Your task to perform on an android device: Open wifi settings Image 0: 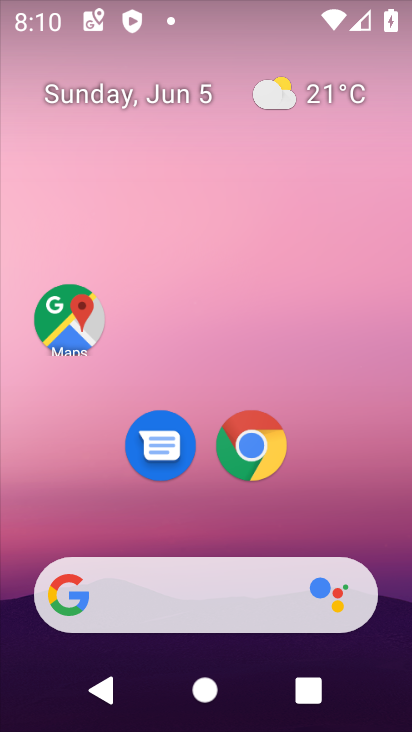
Step 0: press home button
Your task to perform on an android device: Open wifi settings Image 1: 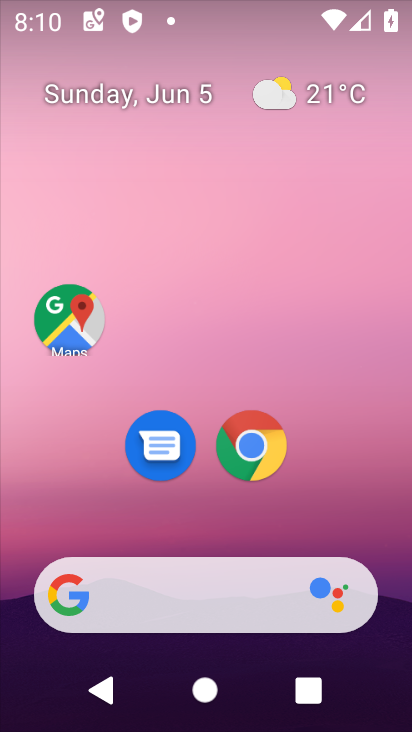
Step 1: drag from (365, 508) to (309, 114)
Your task to perform on an android device: Open wifi settings Image 2: 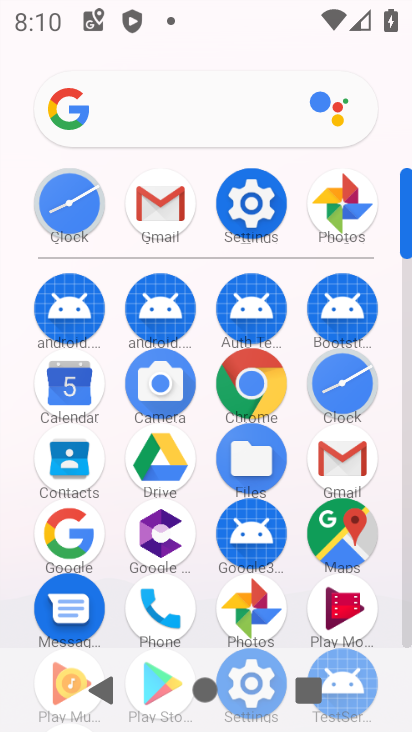
Step 2: click (239, 201)
Your task to perform on an android device: Open wifi settings Image 3: 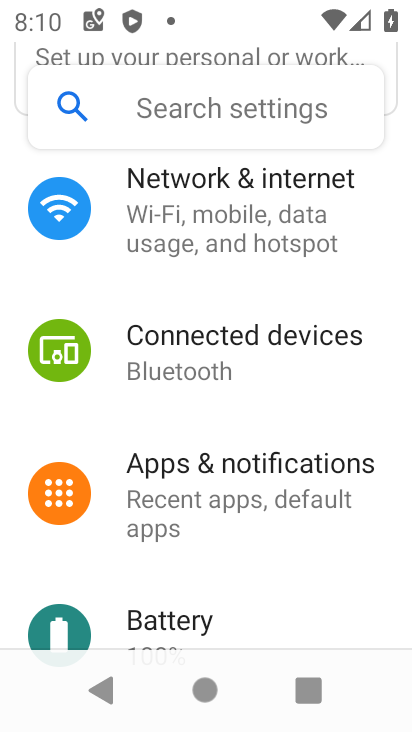
Step 3: click (202, 209)
Your task to perform on an android device: Open wifi settings Image 4: 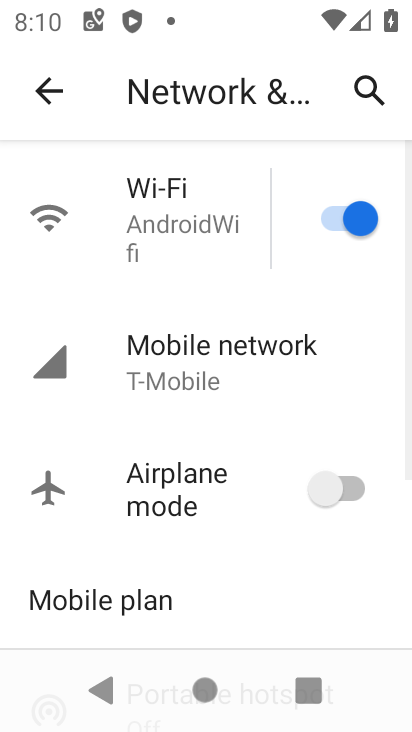
Step 4: click (145, 233)
Your task to perform on an android device: Open wifi settings Image 5: 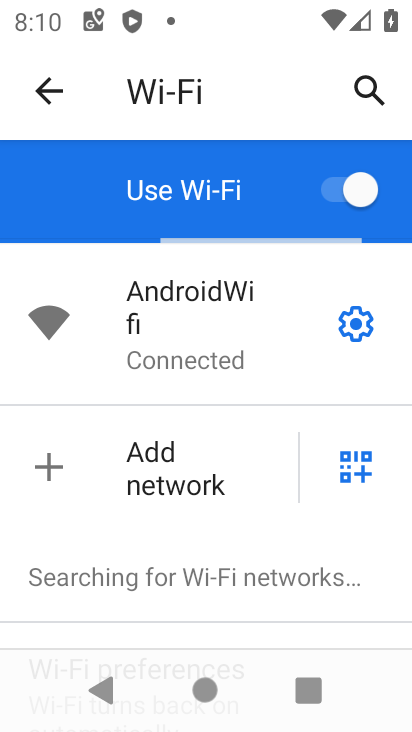
Step 5: task complete